Your task to perform on an android device: find which apps use the phone's location Image 0: 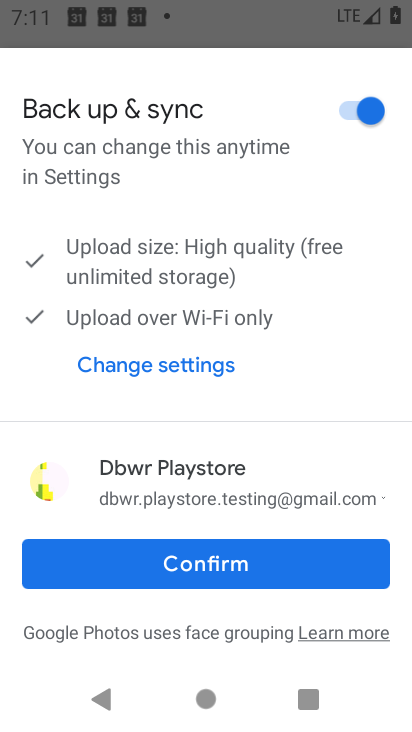
Step 0: press home button
Your task to perform on an android device: find which apps use the phone's location Image 1: 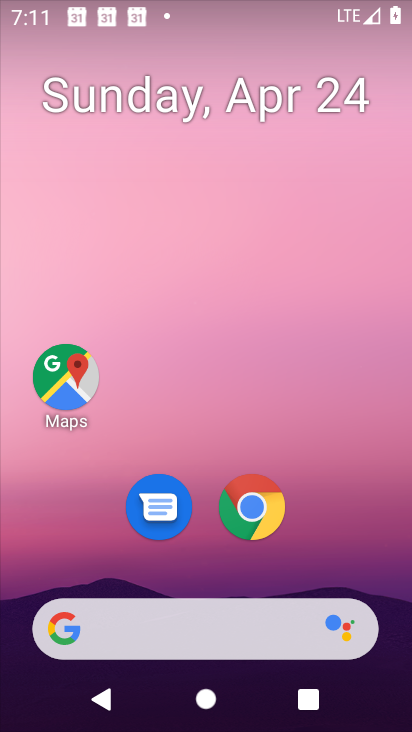
Step 1: drag from (349, 534) to (285, 8)
Your task to perform on an android device: find which apps use the phone's location Image 2: 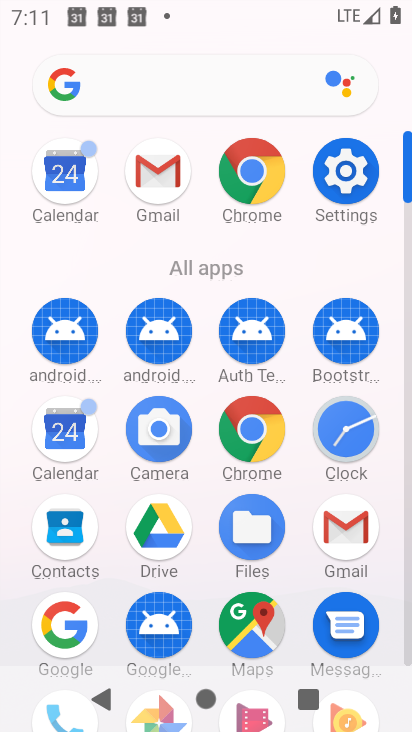
Step 2: click (344, 165)
Your task to perform on an android device: find which apps use the phone's location Image 3: 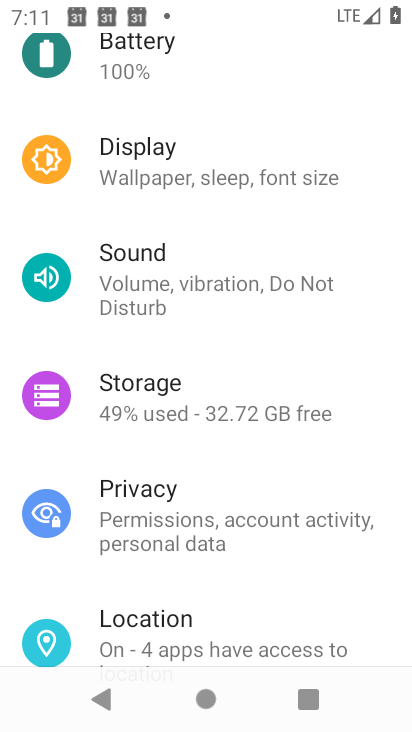
Step 3: drag from (283, 543) to (309, 121)
Your task to perform on an android device: find which apps use the phone's location Image 4: 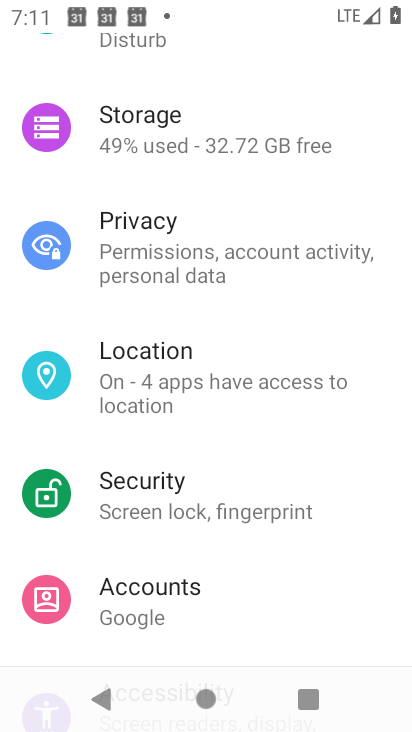
Step 4: click (150, 379)
Your task to perform on an android device: find which apps use the phone's location Image 5: 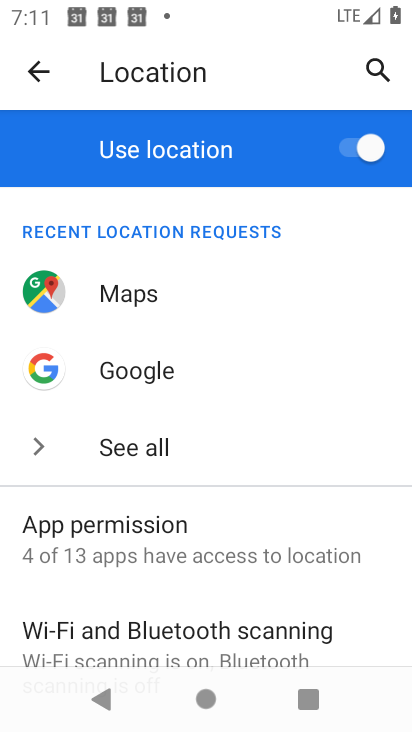
Step 5: drag from (230, 616) to (212, 211)
Your task to perform on an android device: find which apps use the phone's location Image 6: 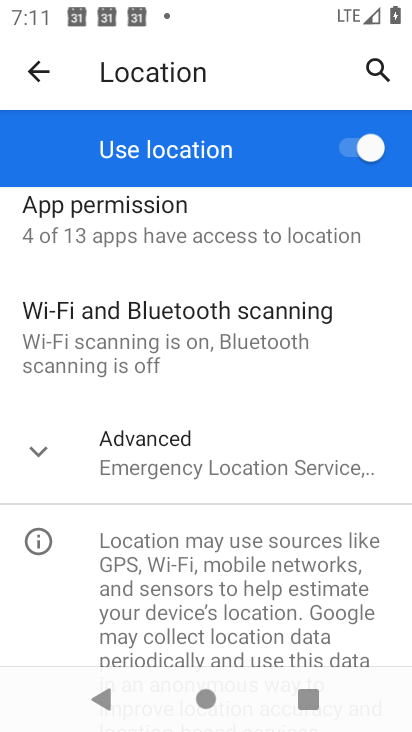
Step 6: drag from (247, 344) to (305, 646)
Your task to perform on an android device: find which apps use the phone's location Image 7: 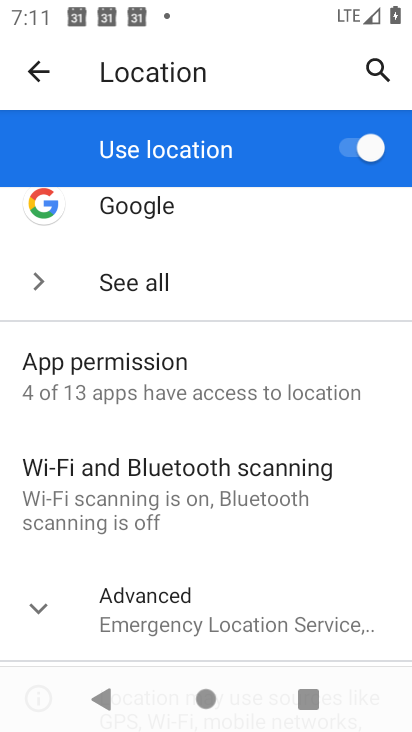
Step 7: drag from (267, 369) to (275, 583)
Your task to perform on an android device: find which apps use the phone's location Image 8: 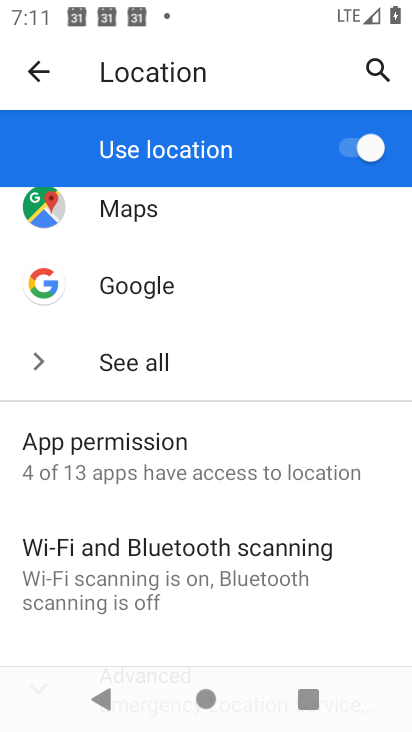
Step 8: click (156, 474)
Your task to perform on an android device: find which apps use the phone's location Image 9: 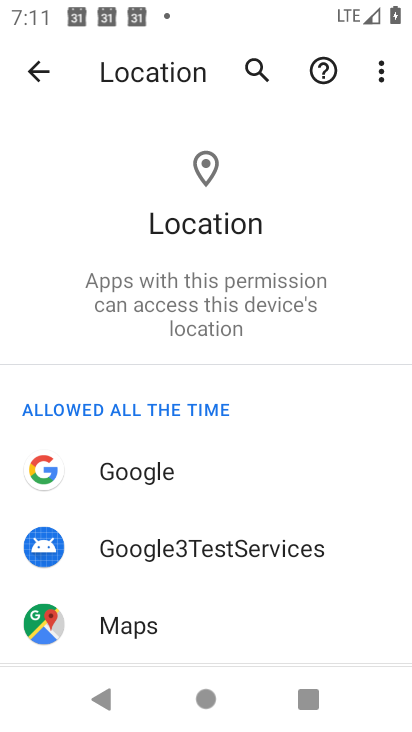
Step 9: task complete